Your task to perform on an android device: Open the calendar and show me this week's events Image 0: 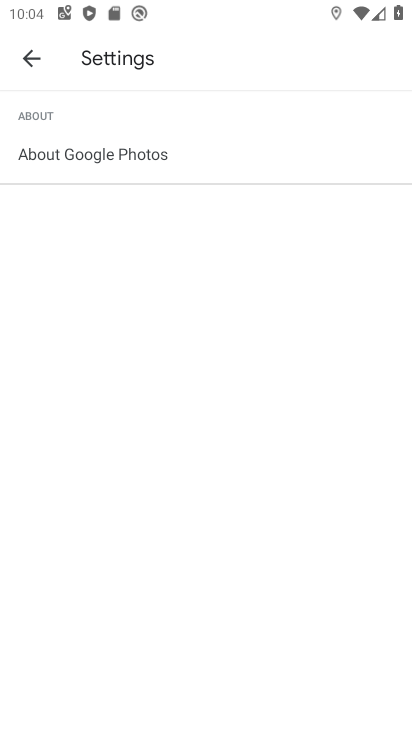
Step 0: press home button
Your task to perform on an android device: Open the calendar and show me this week's events Image 1: 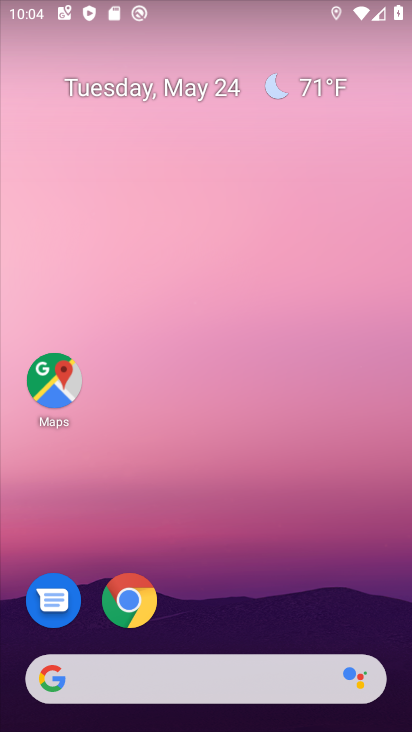
Step 1: drag from (199, 527) to (194, 30)
Your task to perform on an android device: Open the calendar and show me this week's events Image 2: 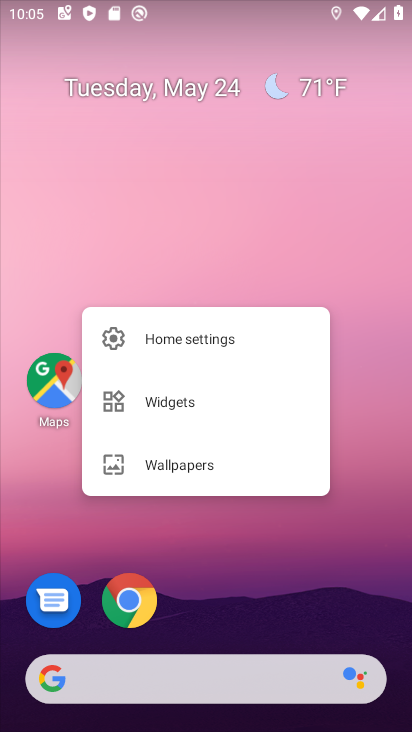
Step 2: click (170, 615)
Your task to perform on an android device: Open the calendar and show me this week's events Image 3: 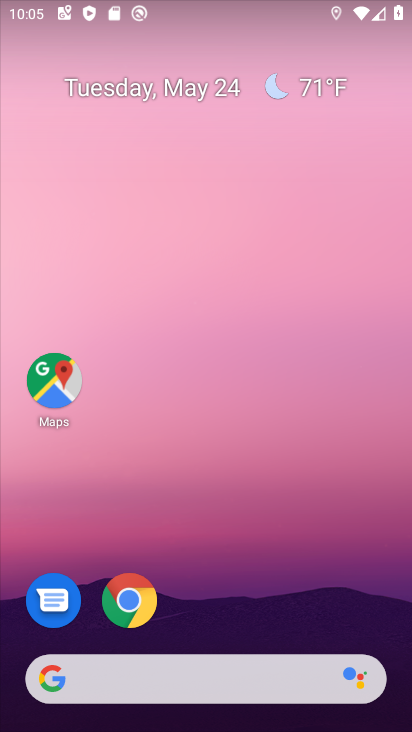
Step 3: drag from (210, 608) to (204, 1)
Your task to perform on an android device: Open the calendar and show me this week's events Image 4: 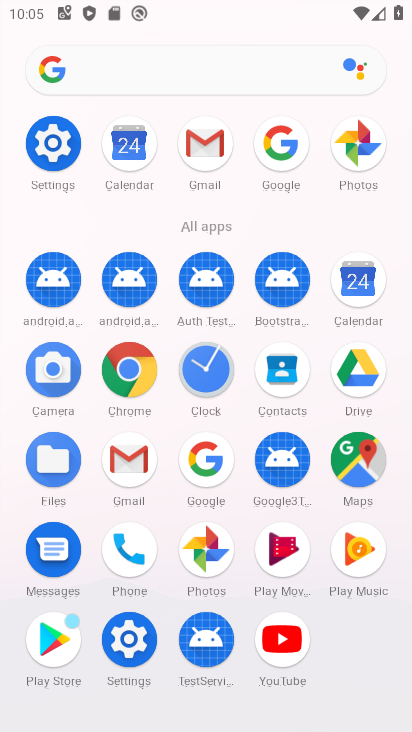
Step 4: click (362, 328)
Your task to perform on an android device: Open the calendar and show me this week's events Image 5: 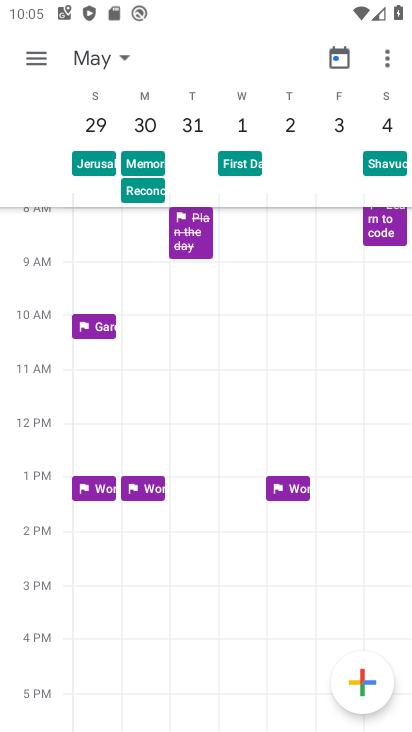
Step 5: task complete